Your task to perform on an android device: Open calendar and show me the fourth week of next month Image 0: 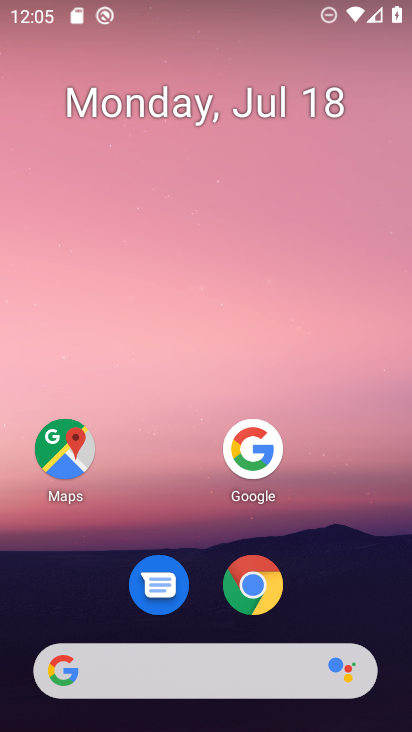
Step 0: press home button
Your task to perform on an android device: Open calendar and show me the fourth week of next month Image 1: 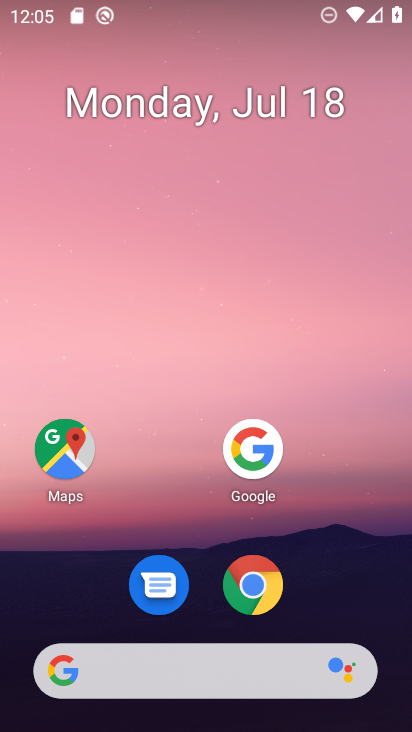
Step 1: drag from (182, 668) to (316, 206)
Your task to perform on an android device: Open calendar and show me the fourth week of next month Image 2: 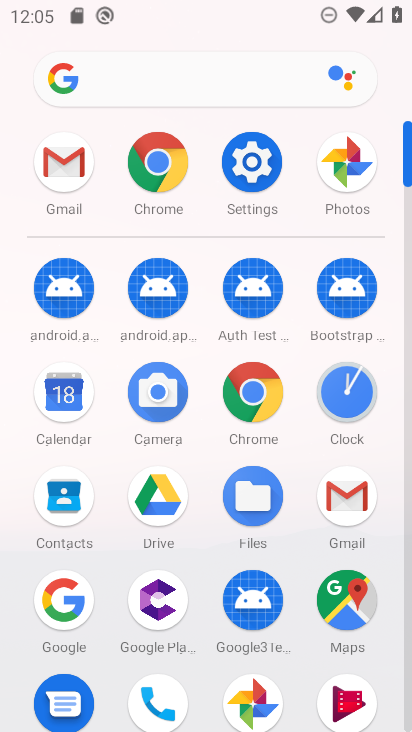
Step 2: click (68, 395)
Your task to perform on an android device: Open calendar and show me the fourth week of next month Image 3: 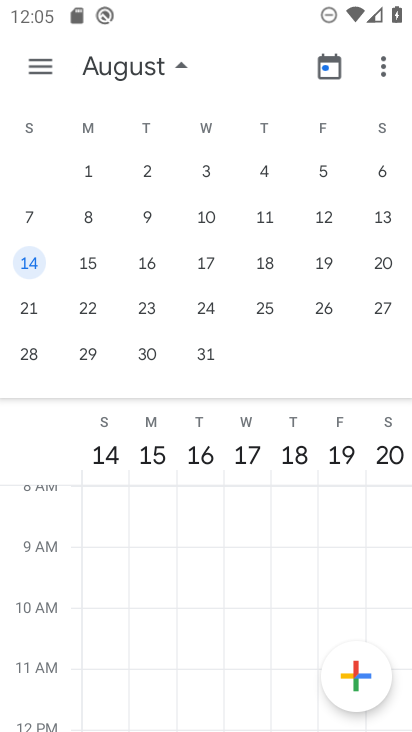
Step 3: click (28, 312)
Your task to perform on an android device: Open calendar and show me the fourth week of next month Image 4: 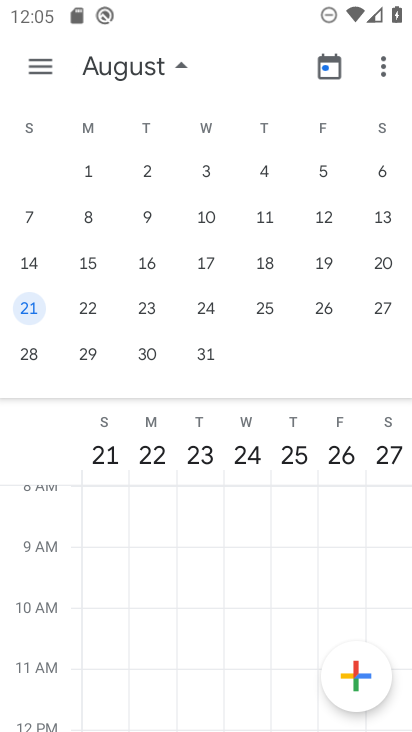
Step 4: click (47, 63)
Your task to perform on an android device: Open calendar and show me the fourth week of next month Image 5: 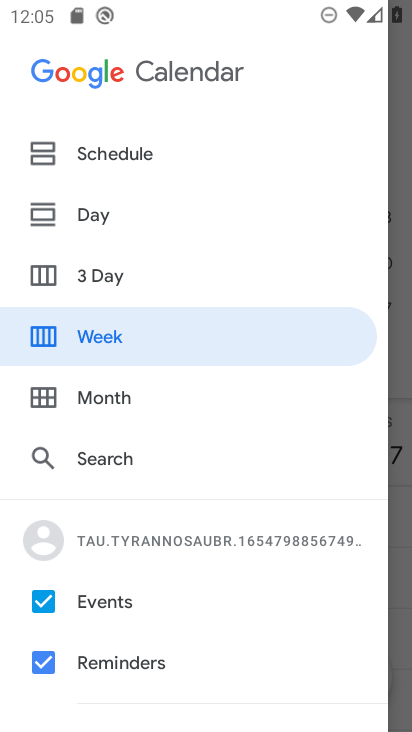
Step 5: click (118, 342)
Your task to perform on an android device: Open calendar and show me the fourth week of next month Image 6: 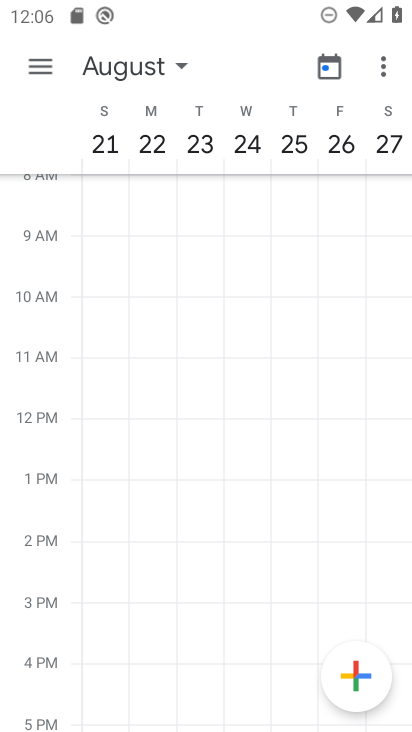
Step 6: task complete